Your task to perform on an android device: delete location history Image 0: 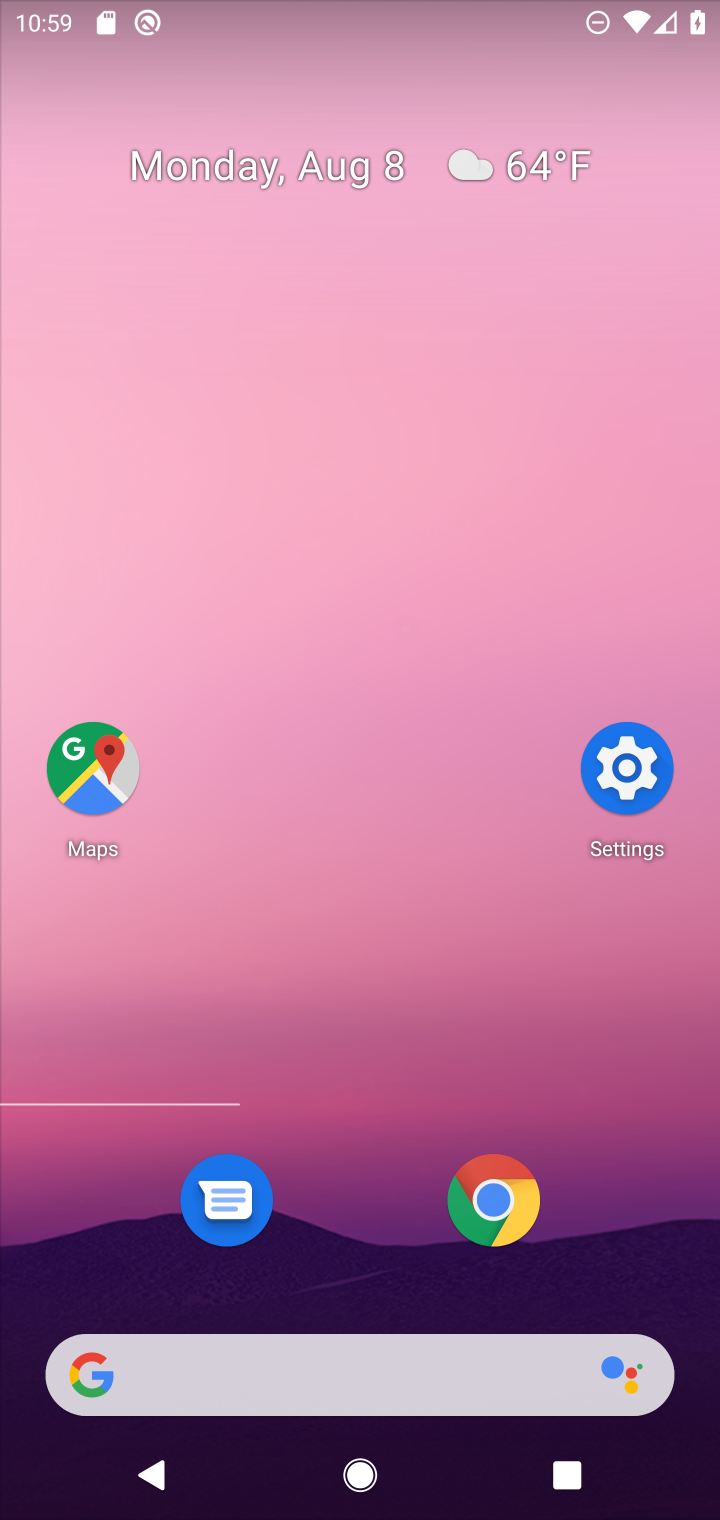
Step 0: click (95, 769)
Your task to perform on an android device: delete location history Image 1: 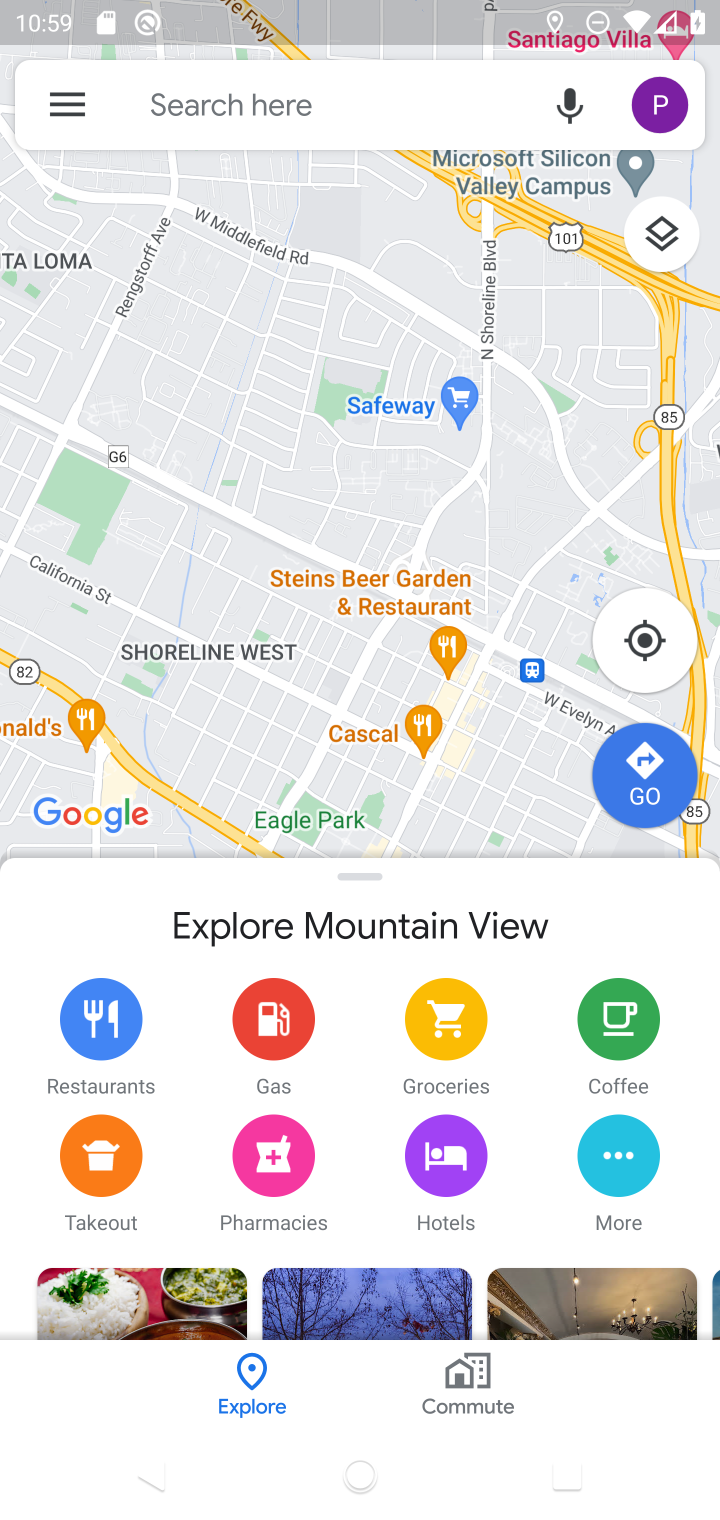
Step 1: click (69, 95)
Your task to perform on an android device: delete location history Image 2: 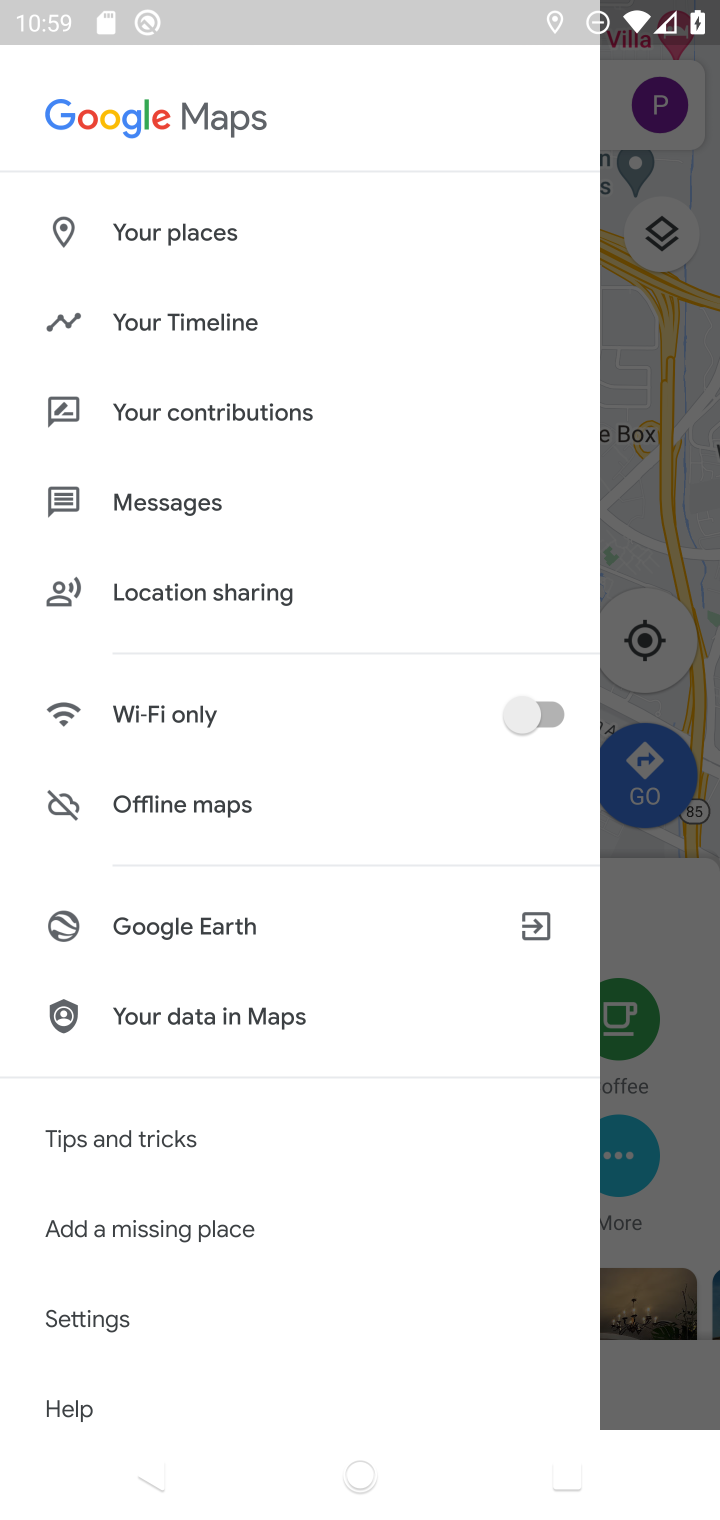
Step 2: click (222, 323)
Your task to perform on an android device: delete location history Image 3: 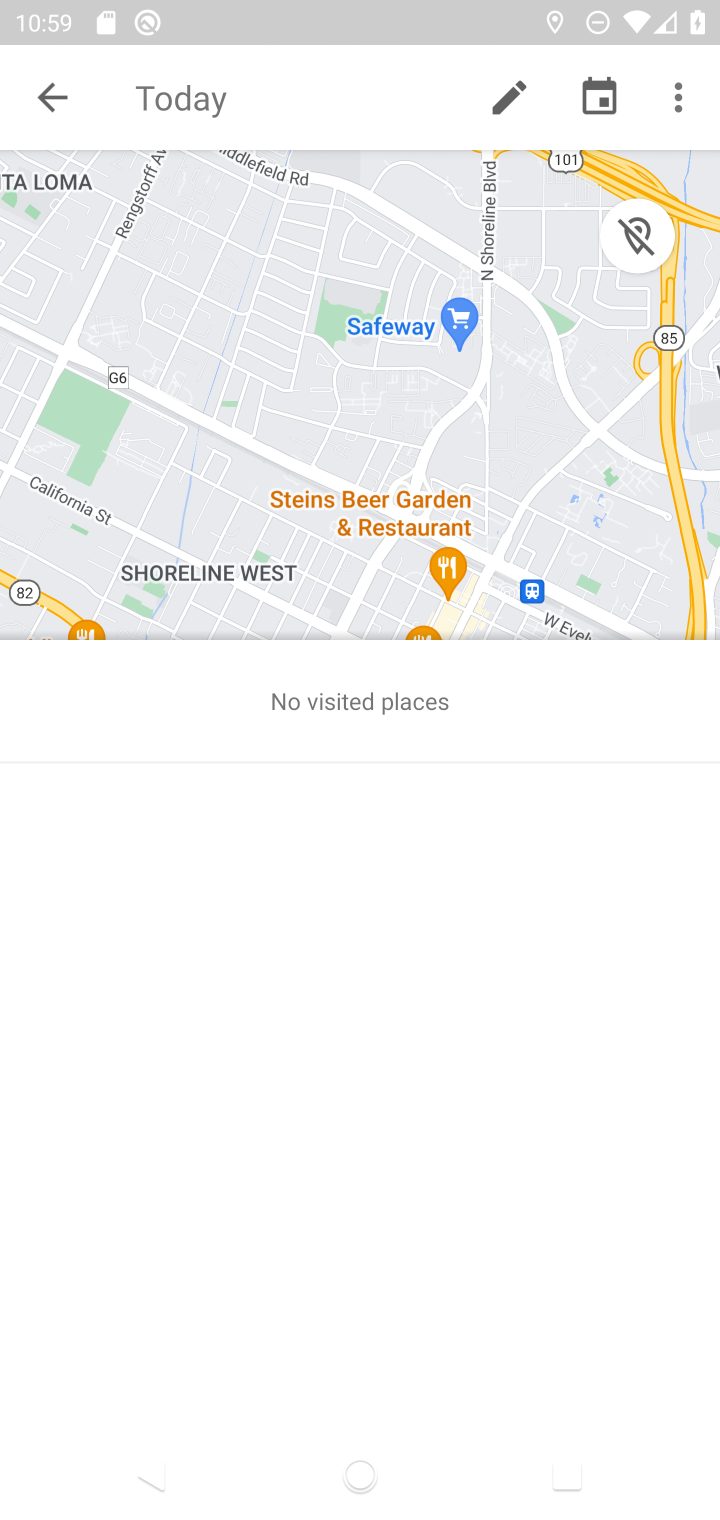
Step 3: click (676, 90)
Your task to perform on an android device: delete location history Image 4: 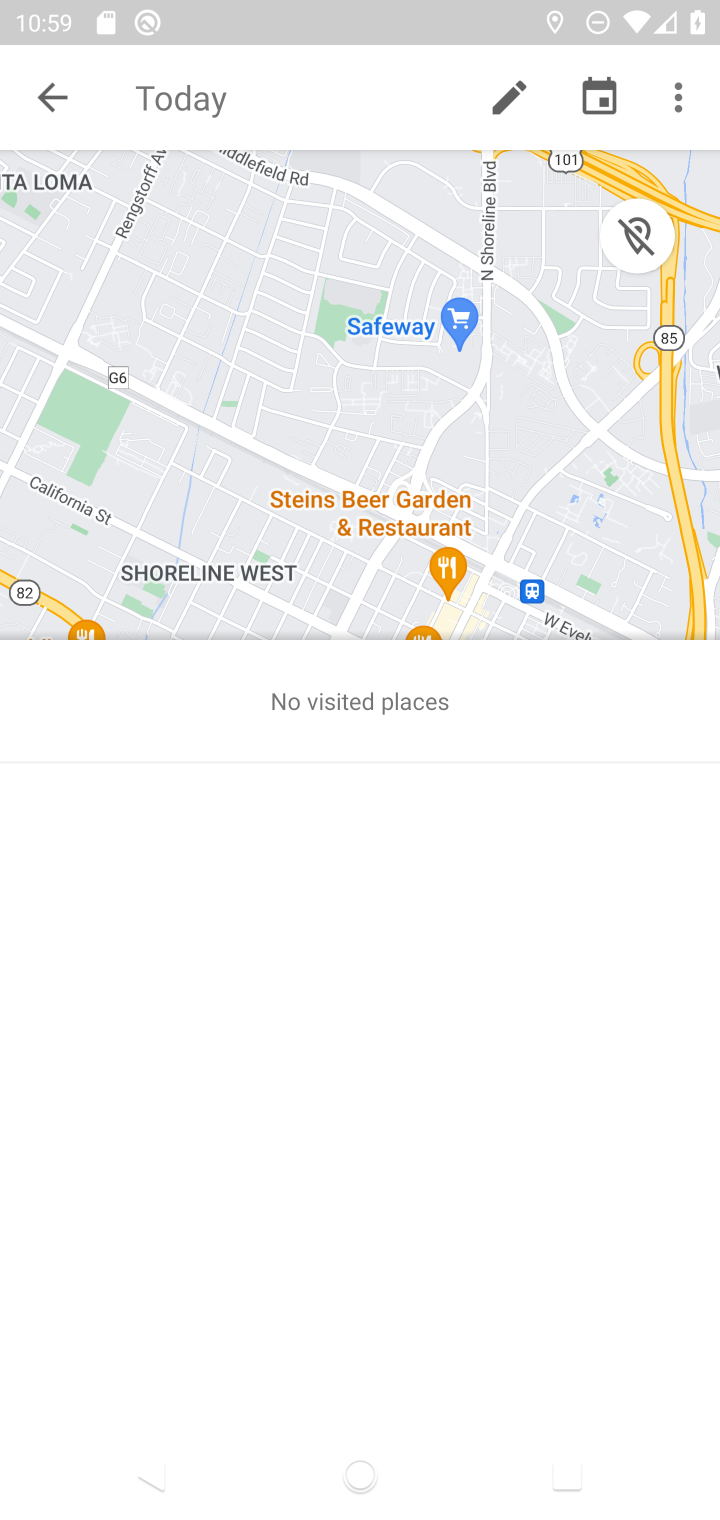
Step 4: click (676, 105)
Your task to perform on an android device: delete location history Image 5: 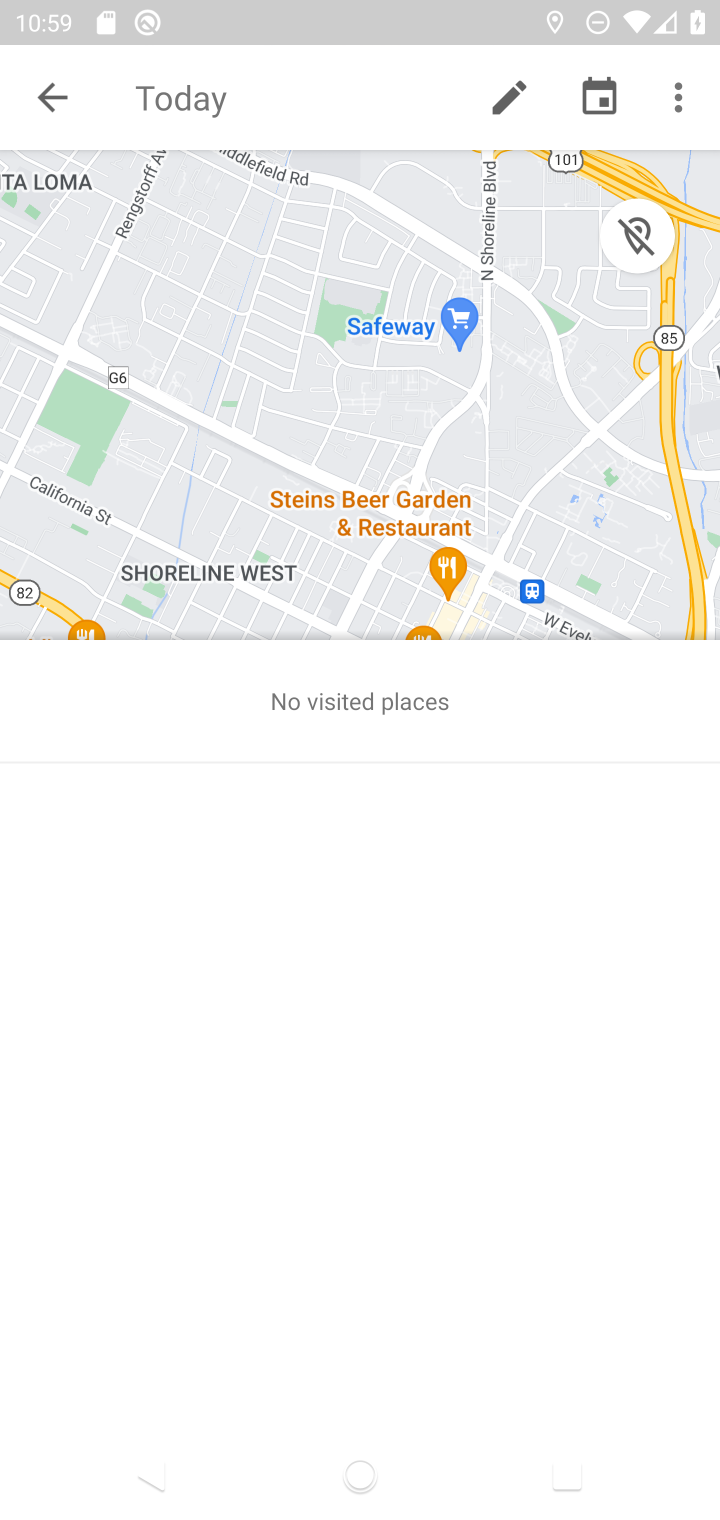
Step 5: click (678, 98)
Your task to perform on an android device: delete location history Image 6: 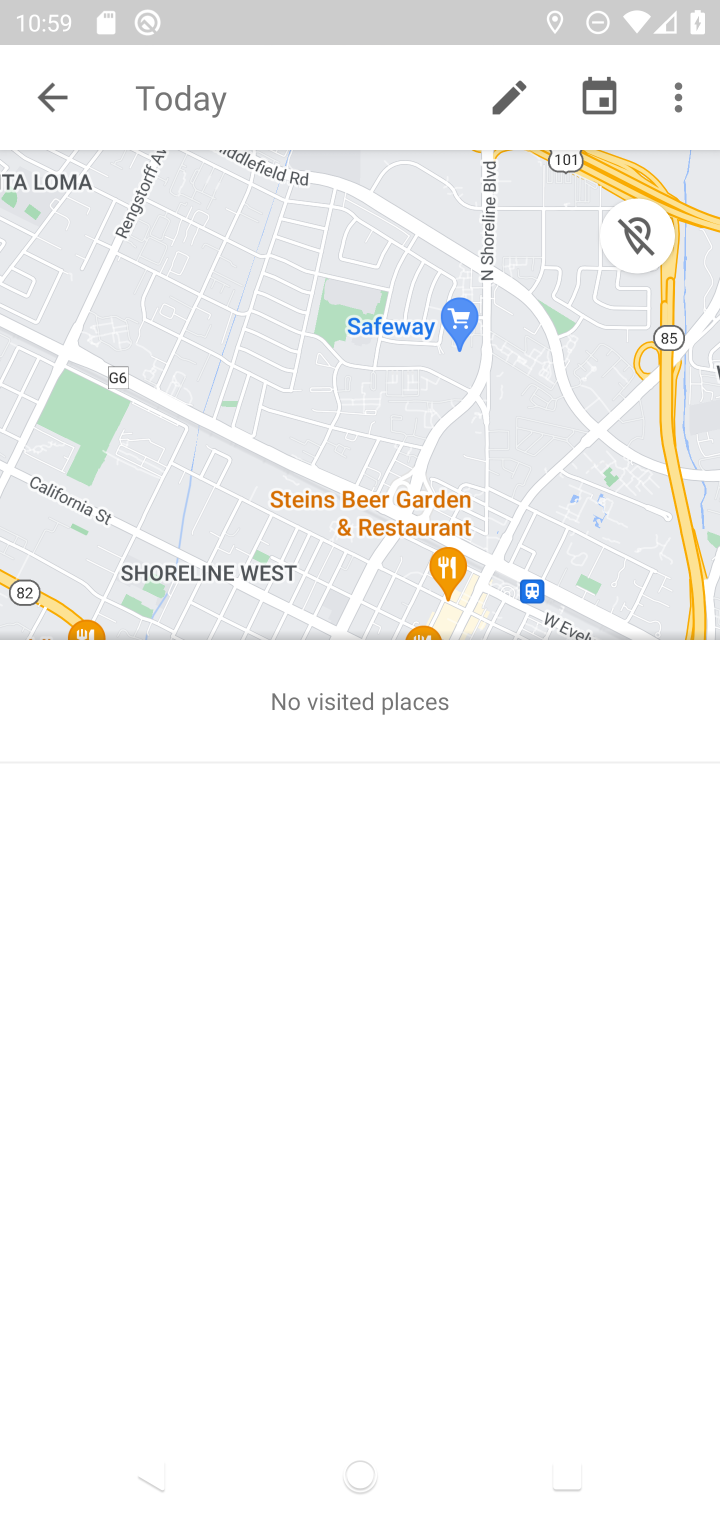
Step 6: click (676, 102)
Your task to perform on an android device: delete location history Image 7: 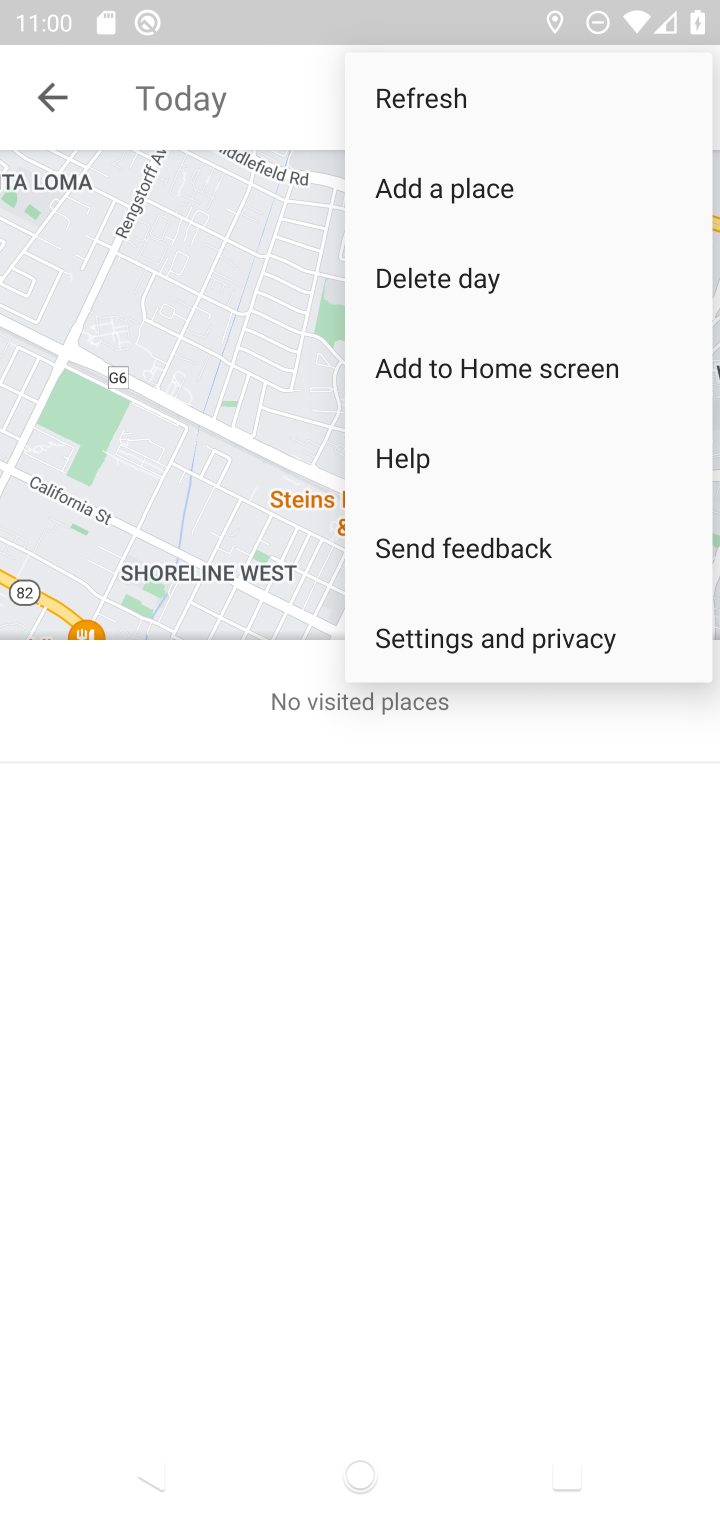
Step 7: click (439, 639)
Your task to perform on an android device: delete location history Image 8: 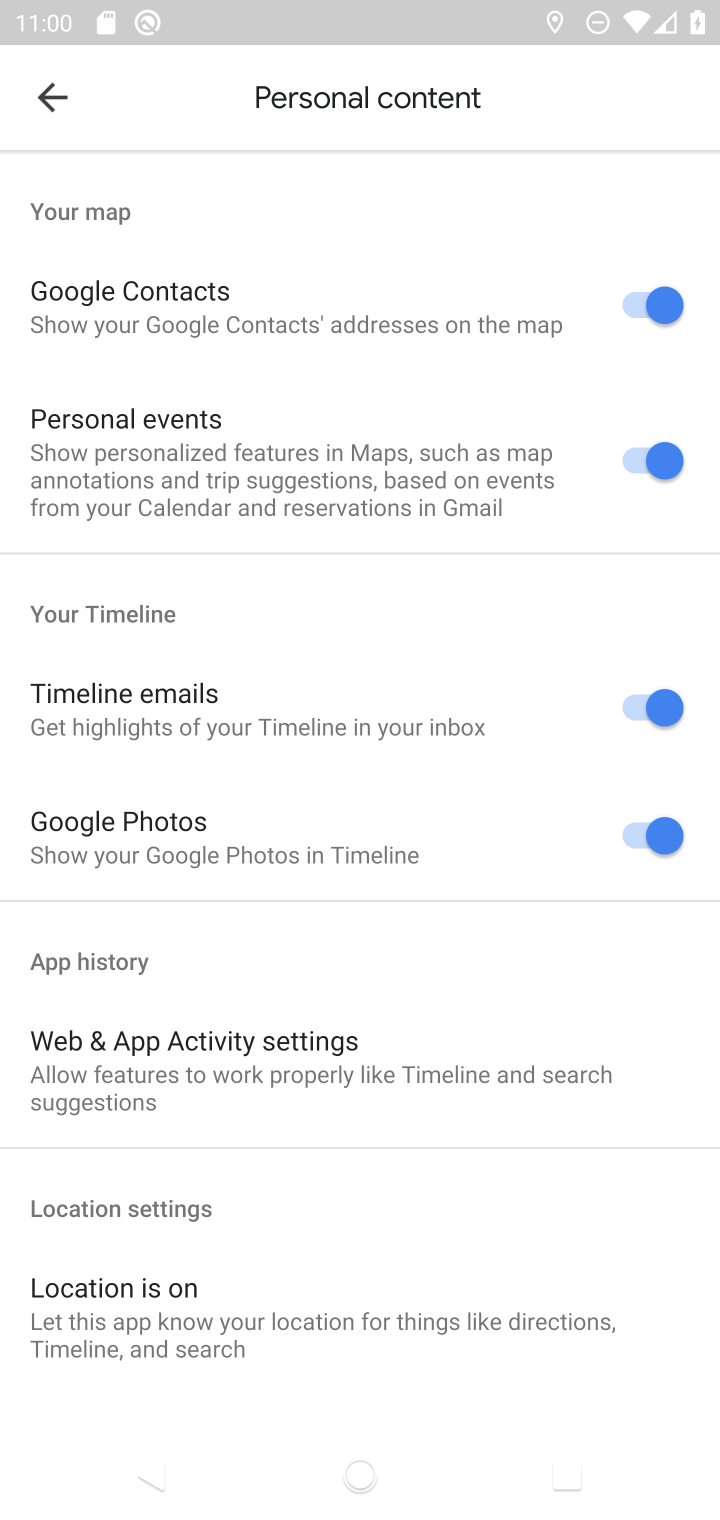
Step 8: drag from (288, 1131) to (502, 225)
Your task to perform on an android device: delete location history Image 9: 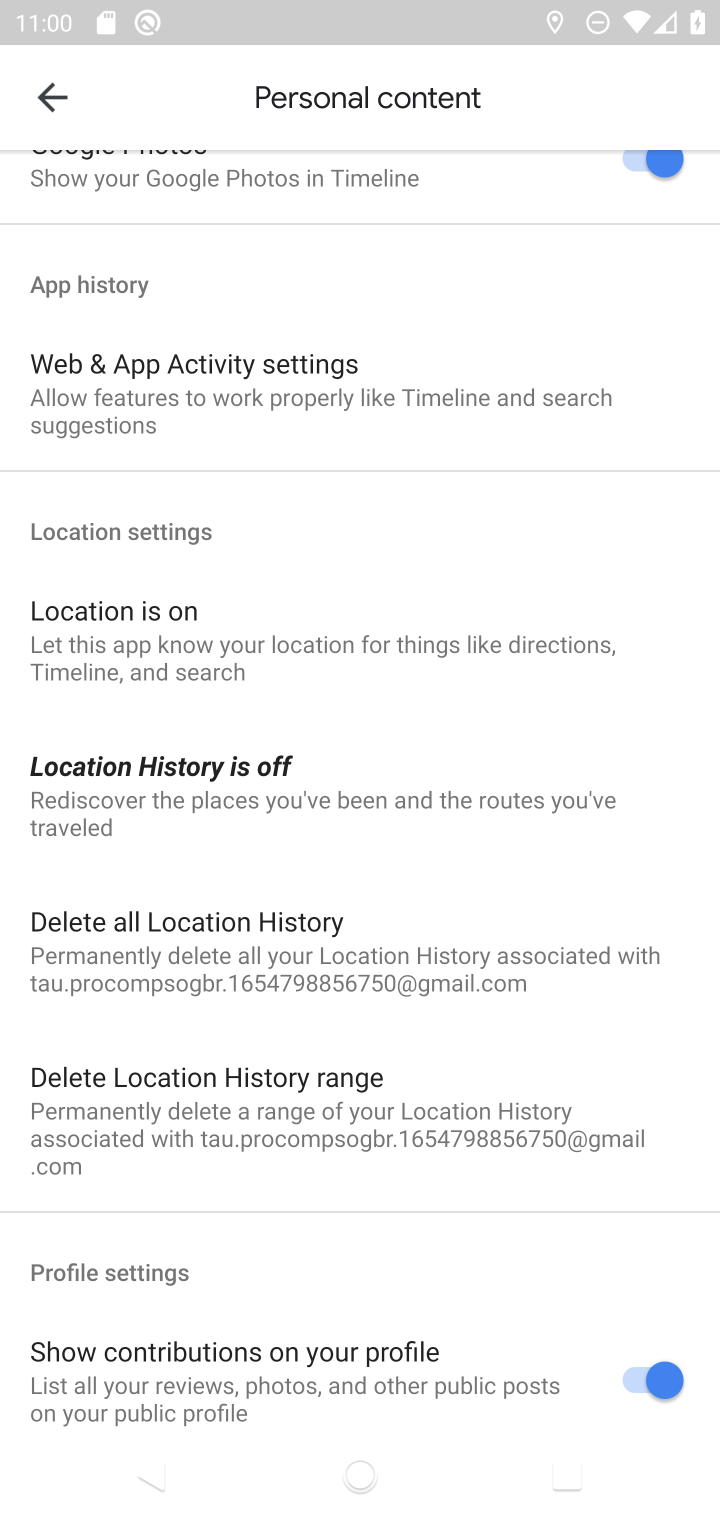
Step 9: click (251, 931)
Your task to perform on an android device: delete location history Image 10: 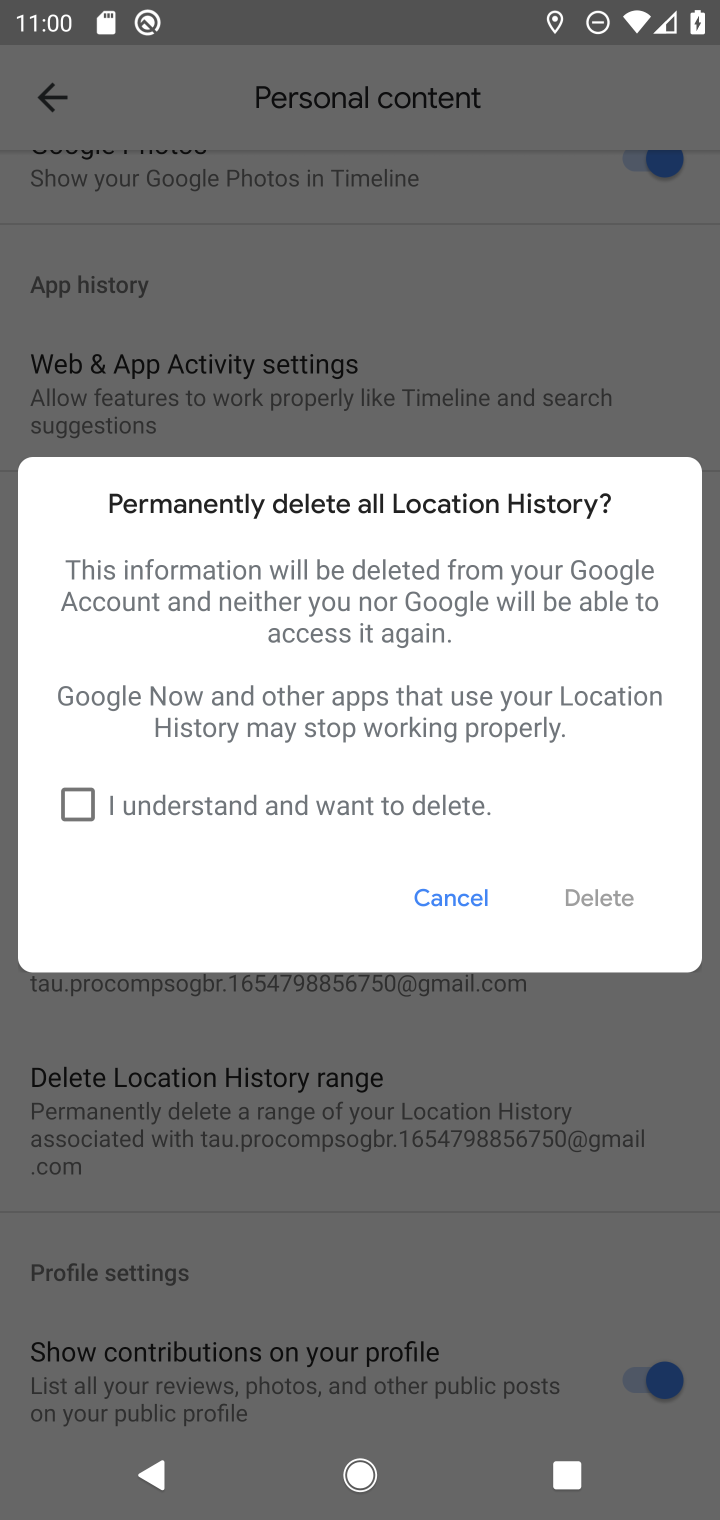
Step 10: click (65, 803)
Your task to perform on an android device: delete location history Image 11: 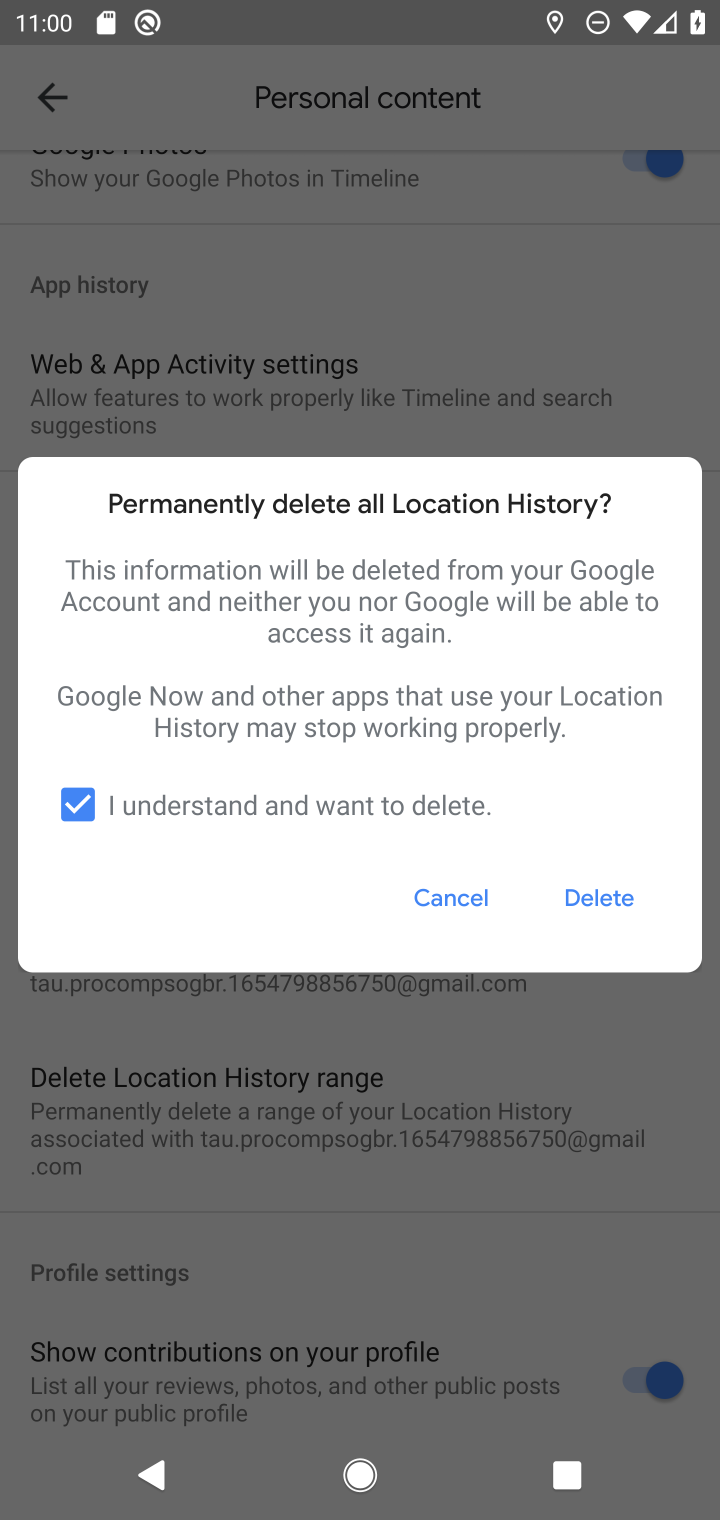
Step 11: click (610, 886)
Your task to perform on an android device: delete location history Image 12: 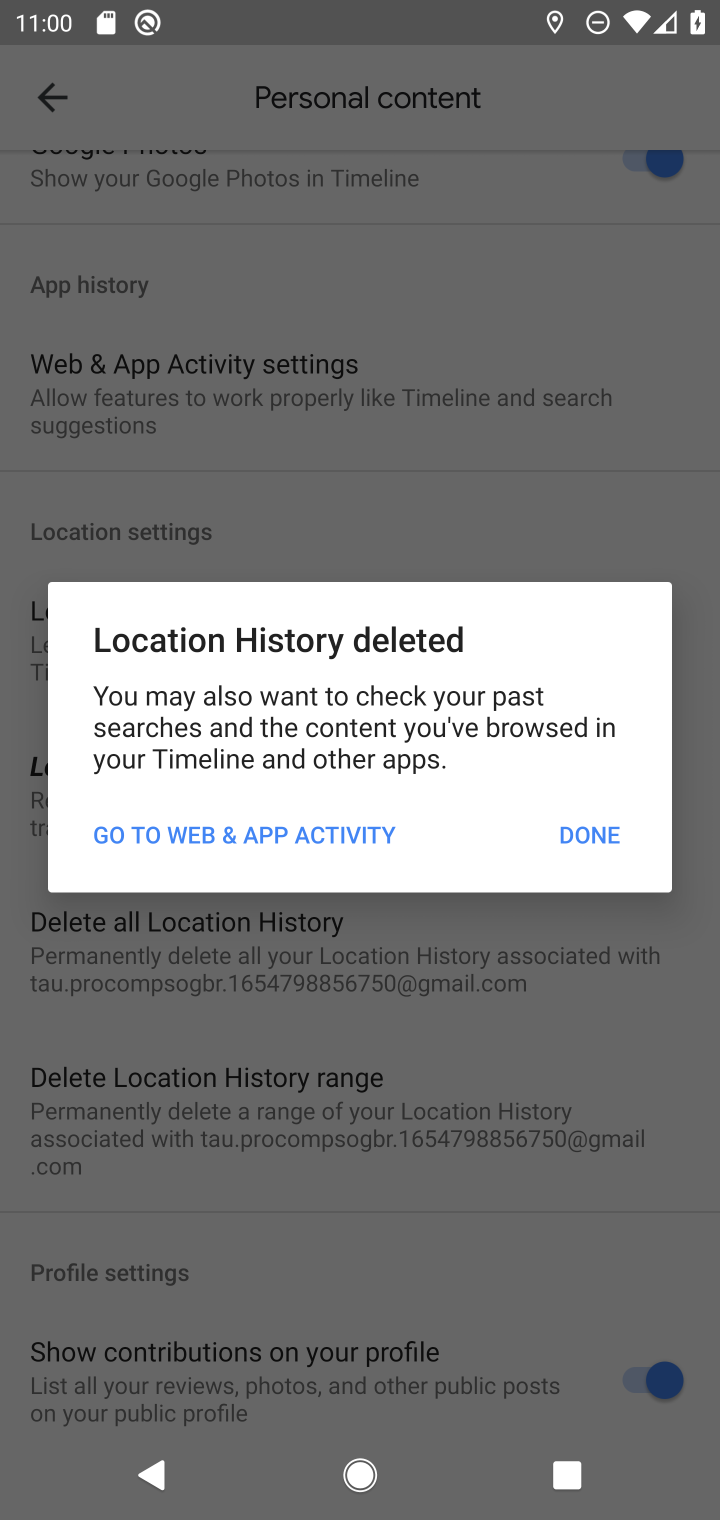
Step 12: click (608, 816)
Your task to perform on an android device: delete location history Image 13: 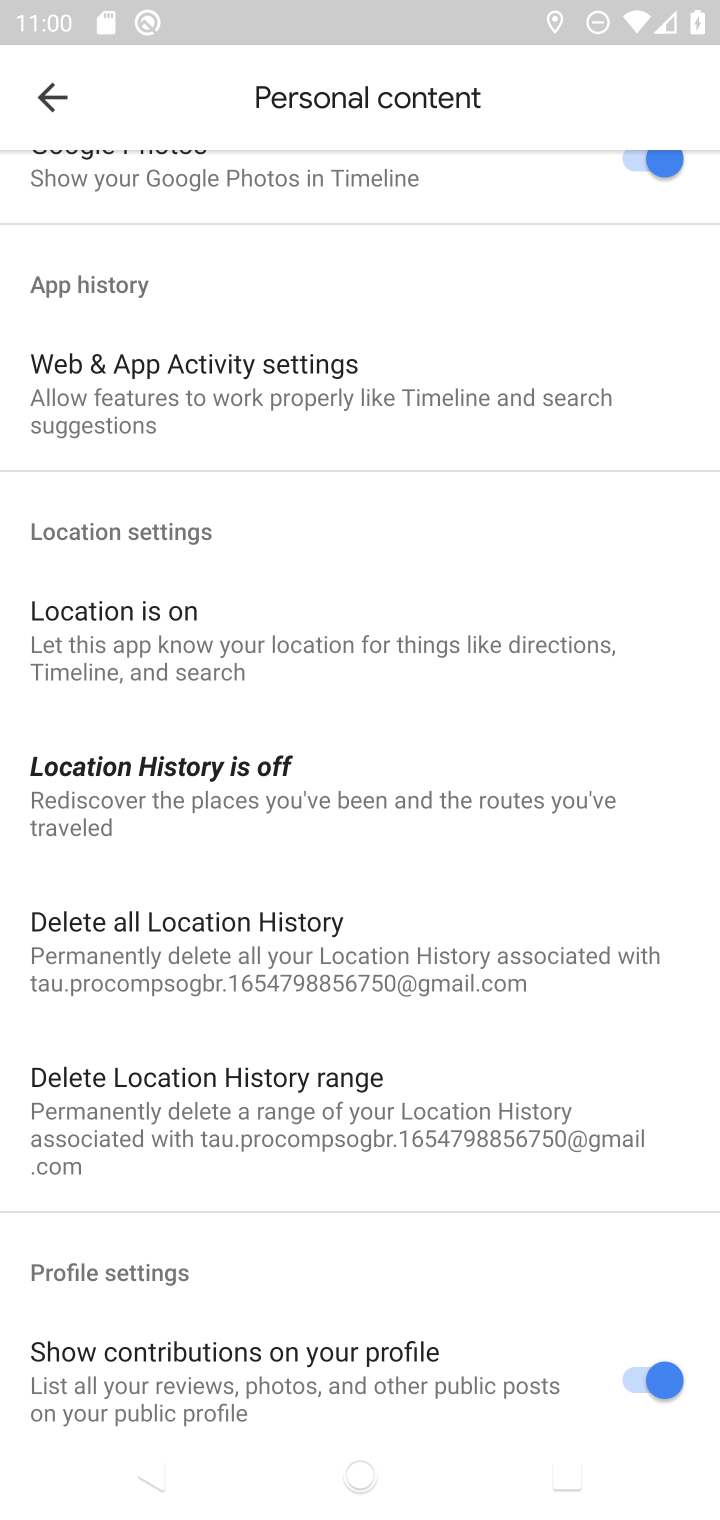
Step 13: task complete